Your task to perform on an android device: Search for the new Nintendo switch on Best Buy Image 0: 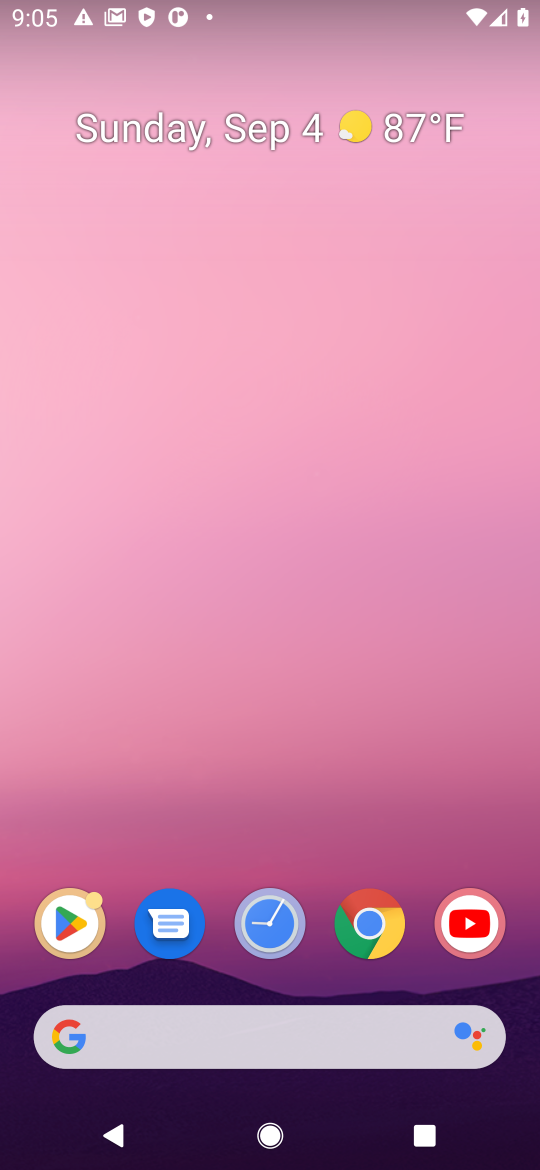
Step 0: press home button
Your task to perform on an android device: Search for the new Nintendo switch on Best Buy Image 1: 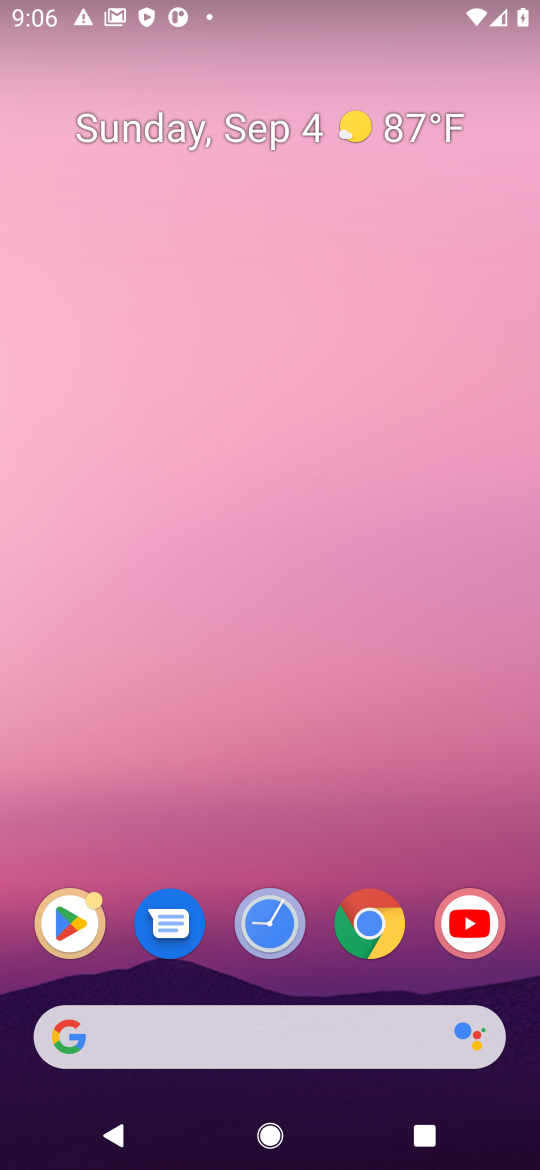
Step 1: click (339, 1047)
Your task to perform on an android device: Search for the new Nintendo switch on Best Buy Image 2: 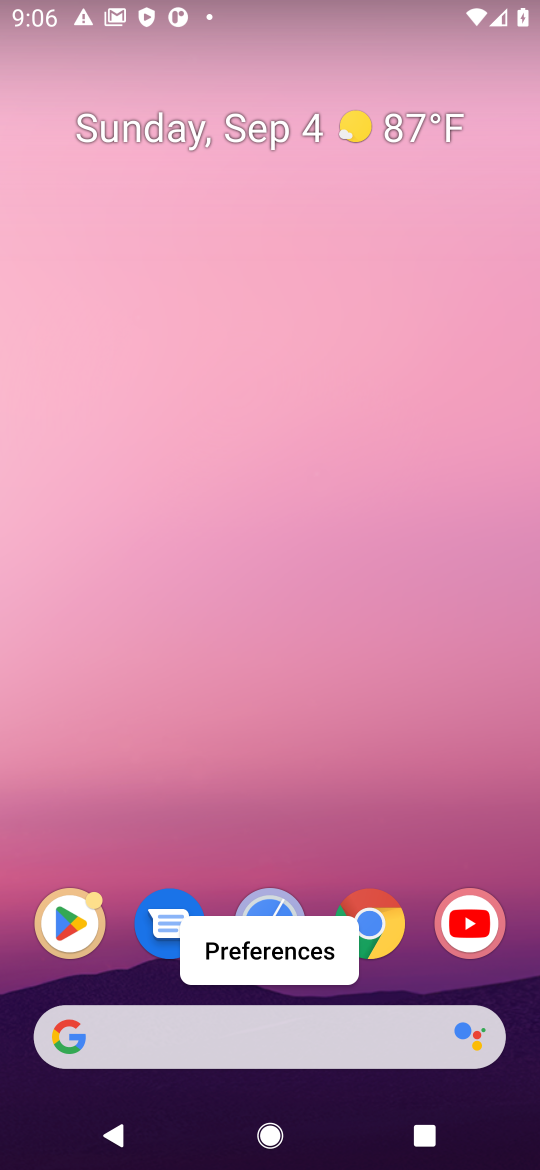
Step 2: click (339, 1047)
Your task to perform on an android device: Search for the new Nintendo switch on Best Buy Image 3: 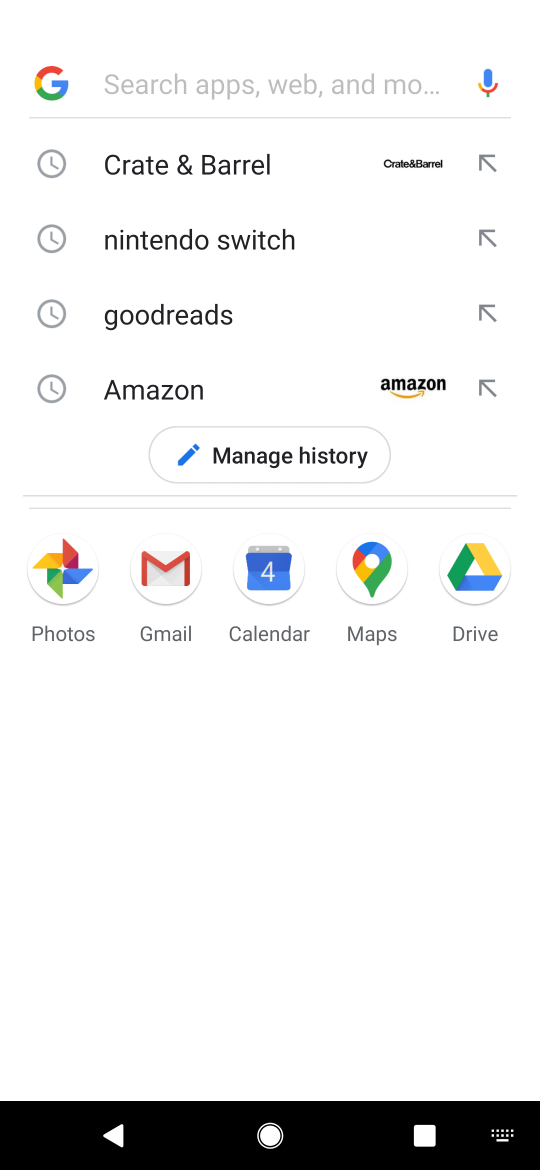
Step 3: press enter
Your task to perform on an android device: Search for the new Nintendo switch on Best Buy Image 4: 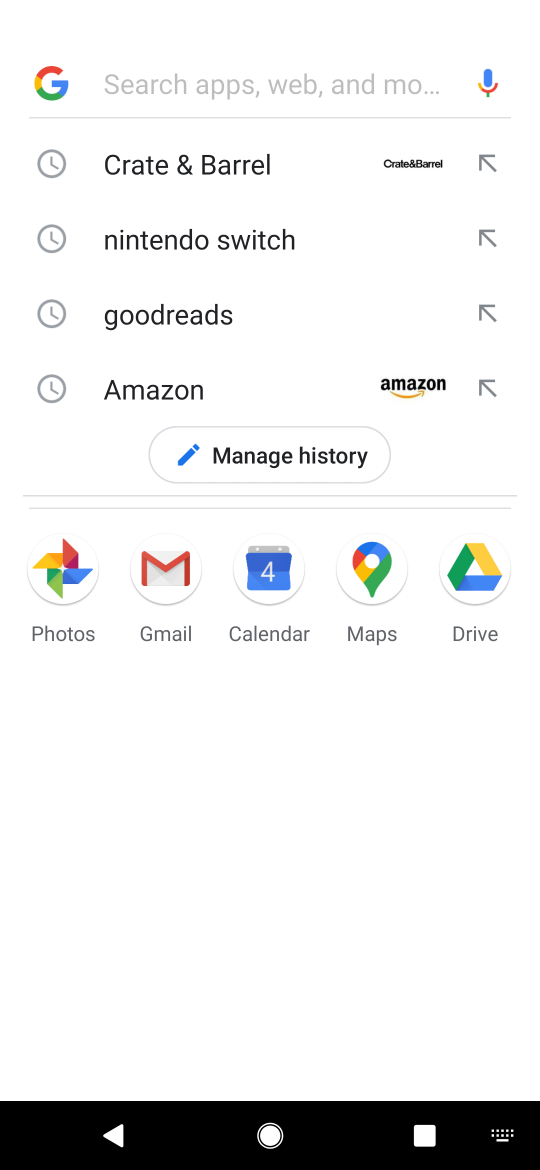
Step 4: type "best buy"
Your task to perform on an android device: Search for the new Nintendo switch on Best Buy Image 5: 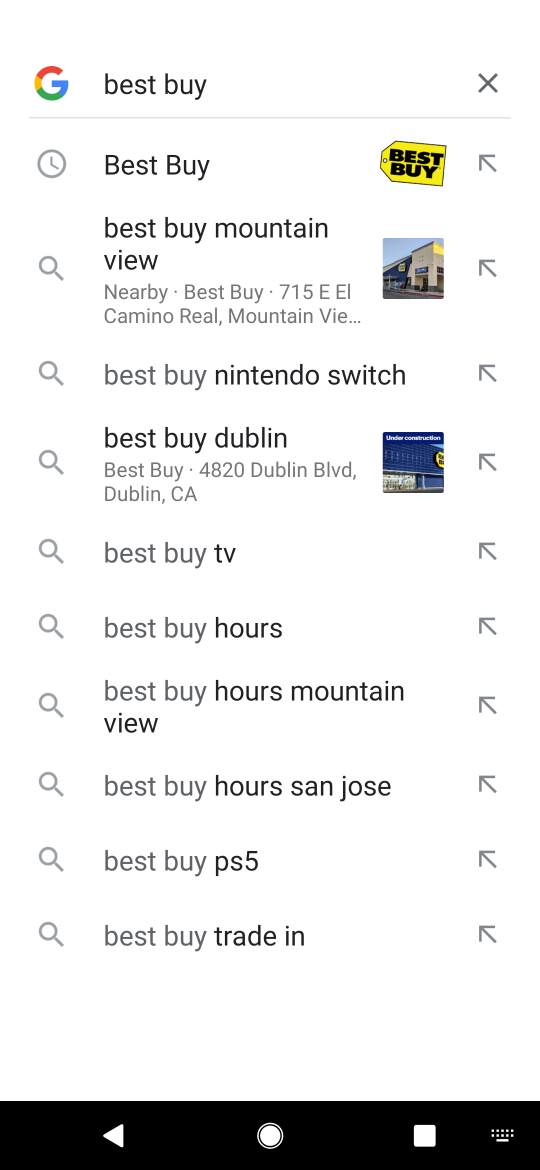
Step 5: click (190, 163)
Your task to perform on an android device: Search for the new Nintendo switch on Best Buy Image 6: 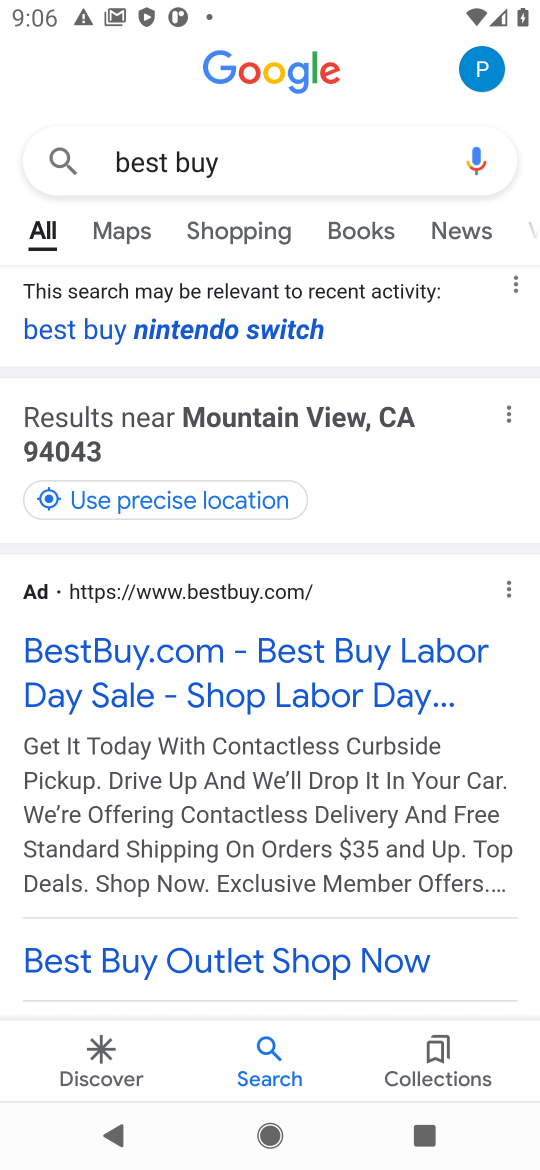
Step 6: click (293, 678)
Your task to perform on an android device: Search for the new Nintendo switch on Best Buy Image 7: 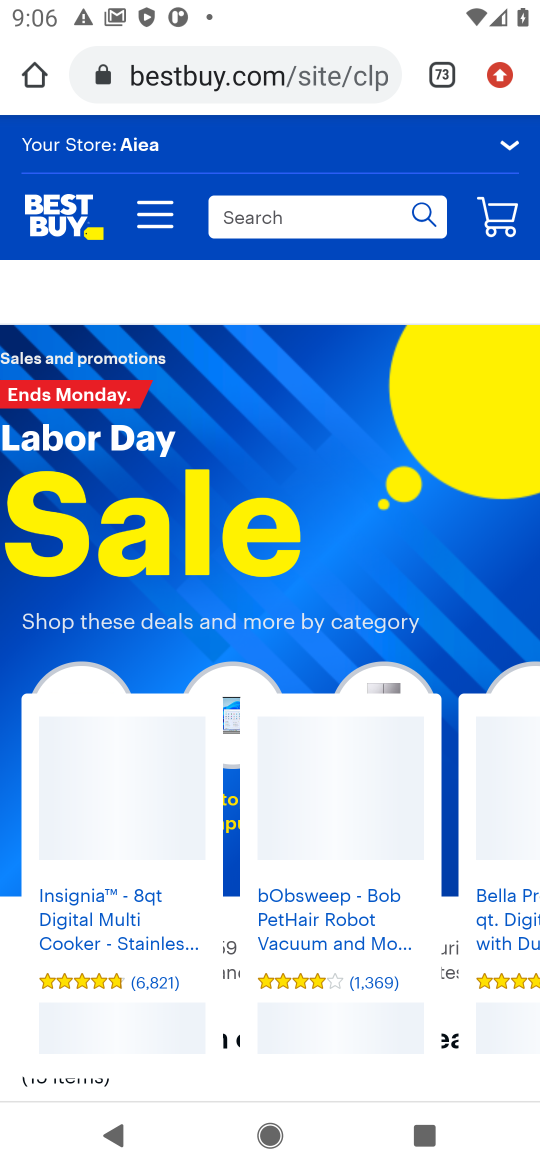
Step 7: click (275, 222)
Your task to perform on an android device: Search for the new Nintendo switch on Best Buy Image 8: 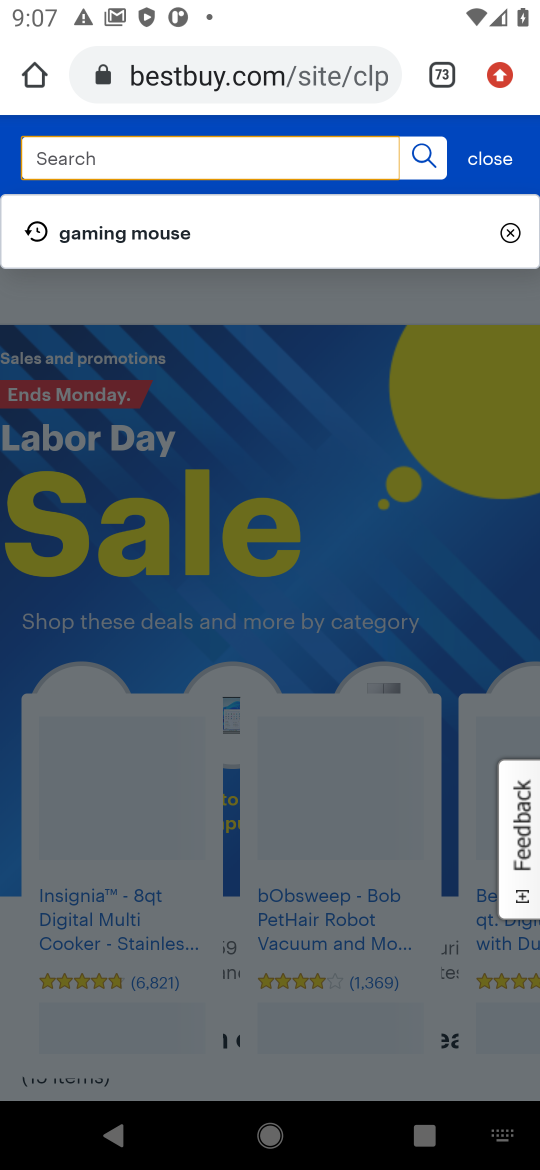
Step 8: press enter
Your task to perform on an android device: Search for the new Nintendo switch on Best Buy Image 9: 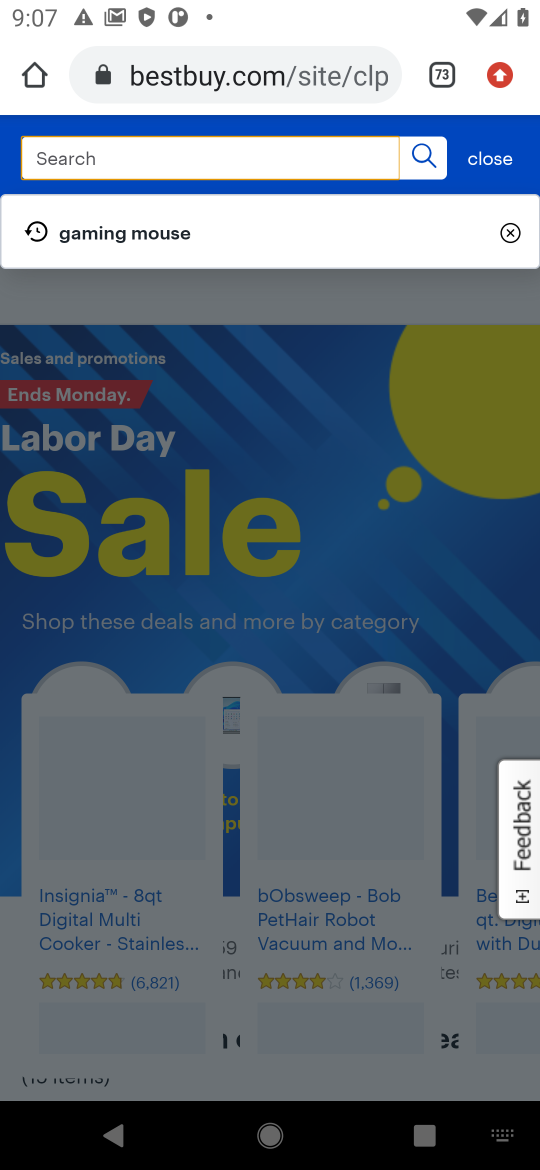
Step 9: type "nintendo switch"
Your task to perform on an android device: Search for the new Nintendo switch on Best Buy Image 10: 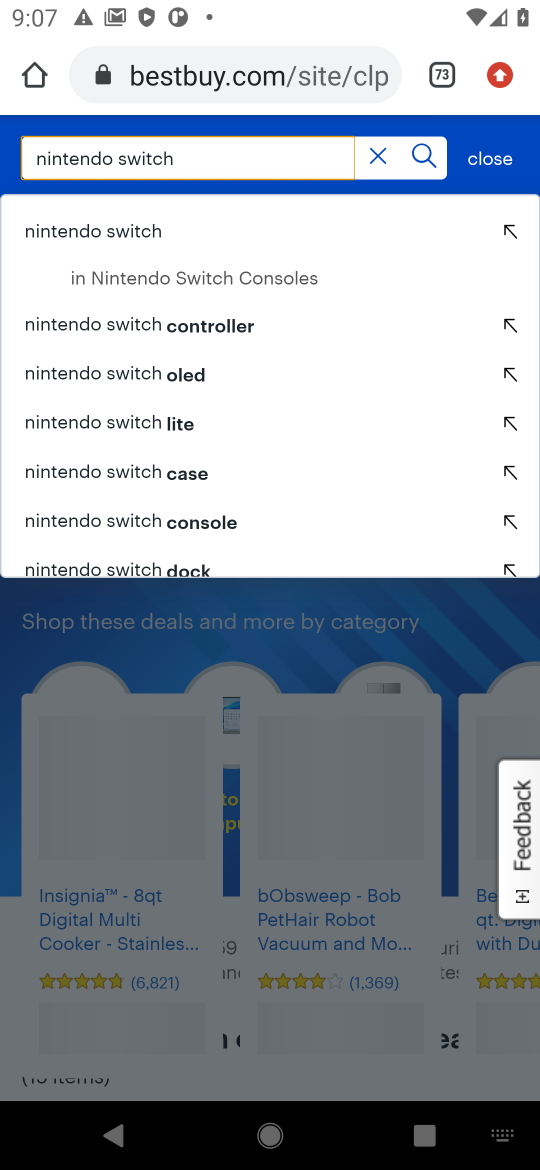
Step 10: click (103, 228)
Your task to perform on an android device: Search for the new Nintendo switch on Best Buy Image 11: 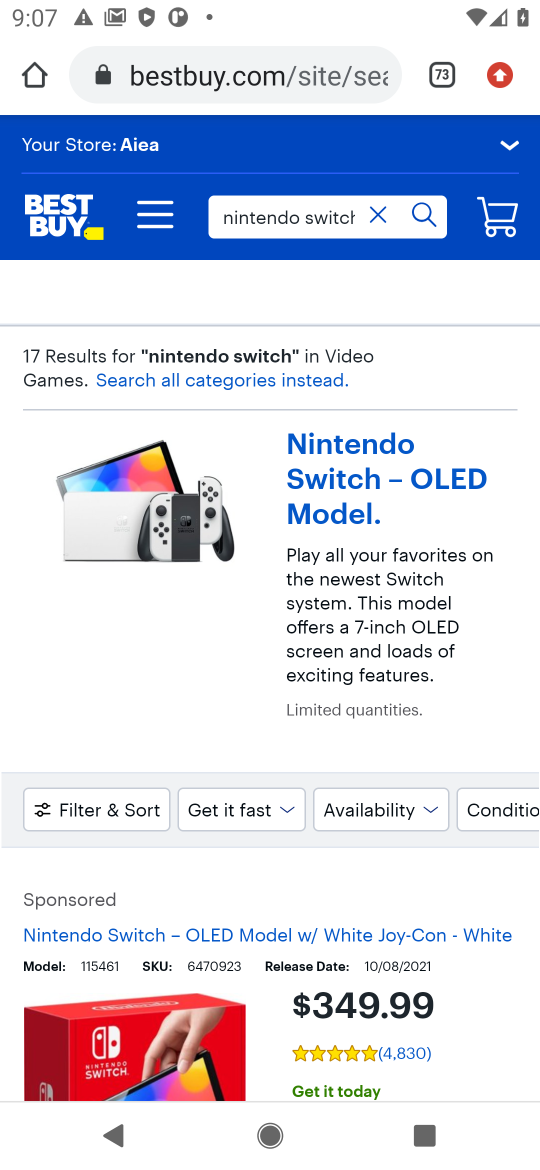
Step 11: task complete